Your task to perform on an android device: Is it going to rain today? Image 0: 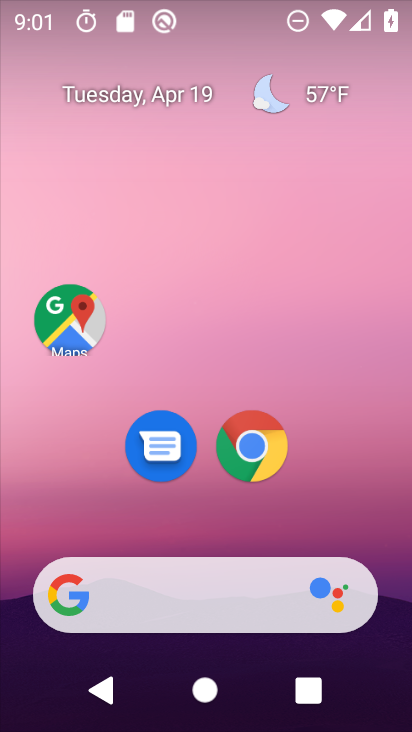
Step 0: click (257, 448)
Your task to perform on an android device: Is it going to rain today? Image 1: 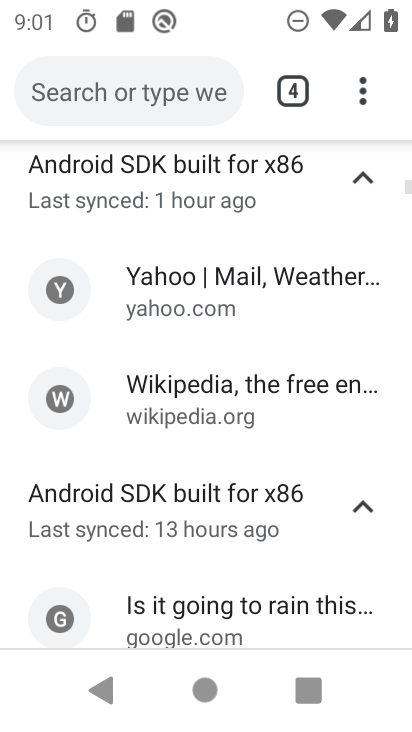
Step 1: click (300, 87)
Your task to perform on an android device: Is it going to rain today? Image 2: 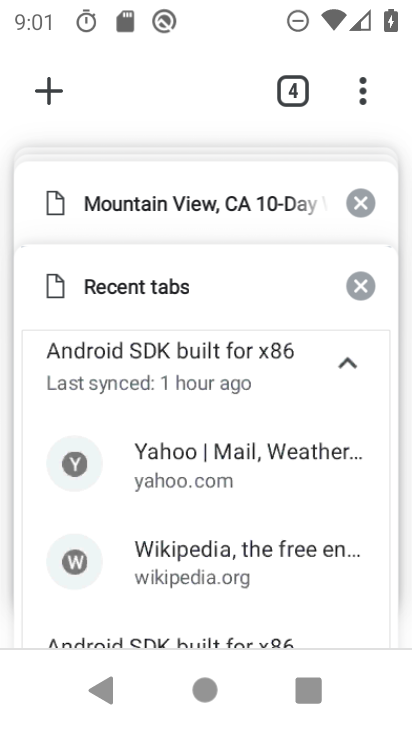
Step 2: click (45, 93)
Your task to perform on an android device: Is it going to rain today? Image 3: 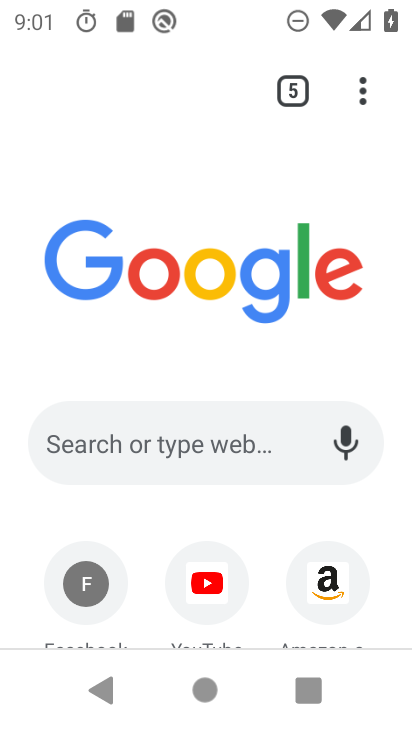
Step 3: click (140, 444)
Your task to perform on an android device: Is it going to rain today? Image 4: 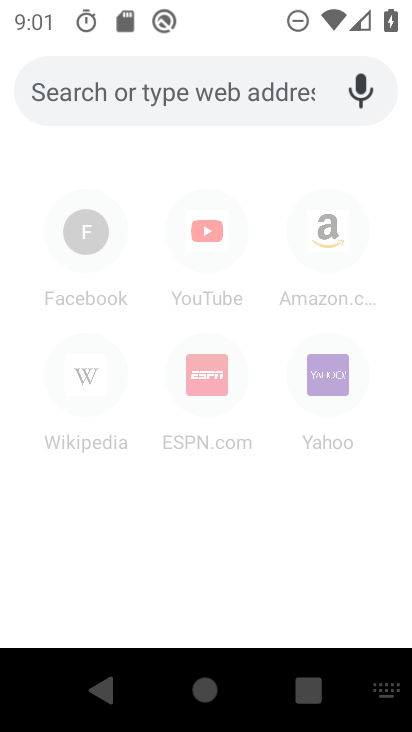
Step 4: type "is it going to rain today"
Your task to perform on an android device: Is it going to rain today? Image 5: 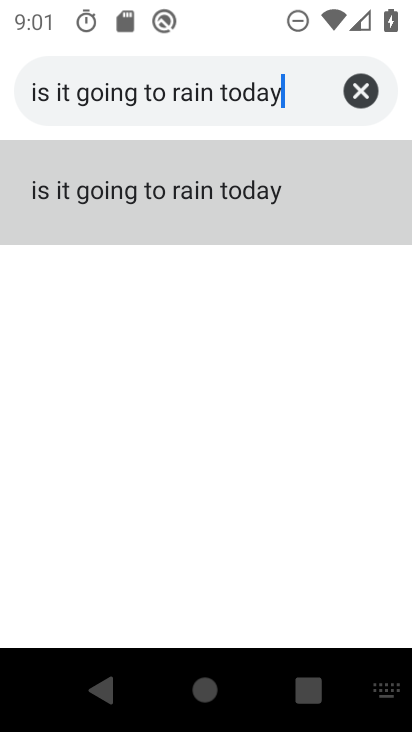
Step 5: click (108, 198)
Your task to perform on an android device: Is it going to rain today? Image 6: 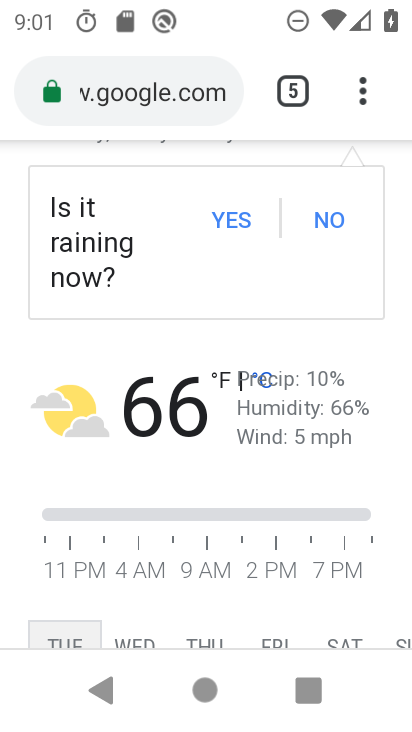
Step 6: task complete